Your task to perform on an android device: turn notification dots on Image 0: 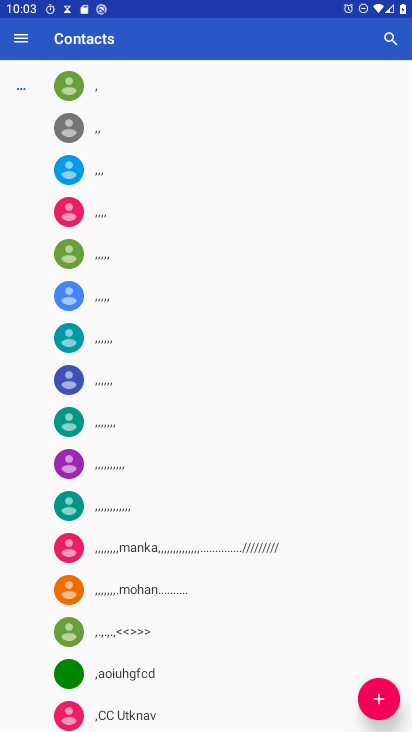
Step 0: press home button
Your task to perform on an android device: turn notification dots on Image 1: 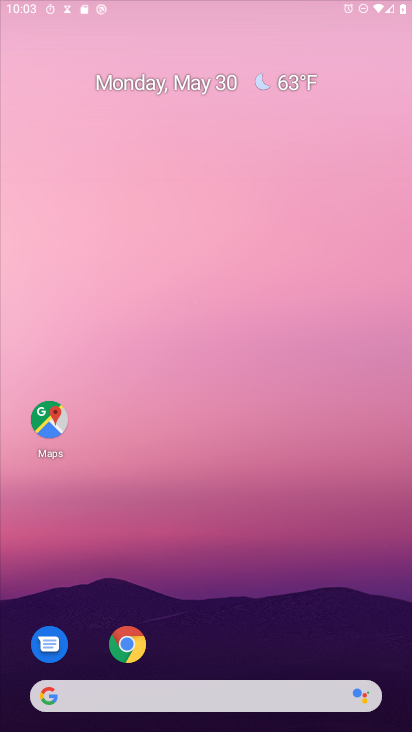
Step 1: drag from (214, 650) to (201, 31)
Your task to perform on an android device: turn notification dots on Image 2: 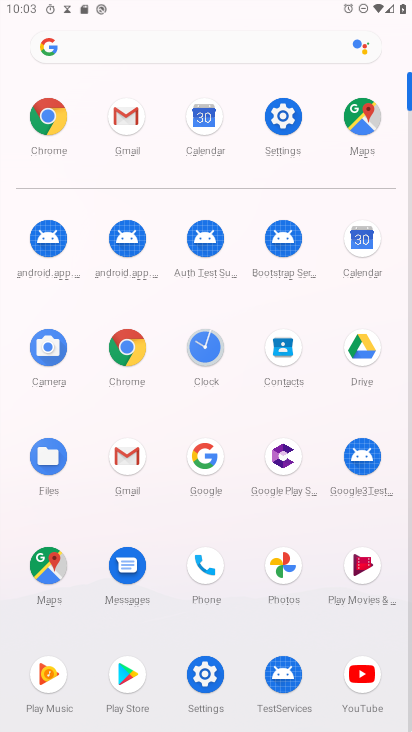
Step 2: click (281, 113)
Your task to perform on an android device: turn notification dots on Image 3: 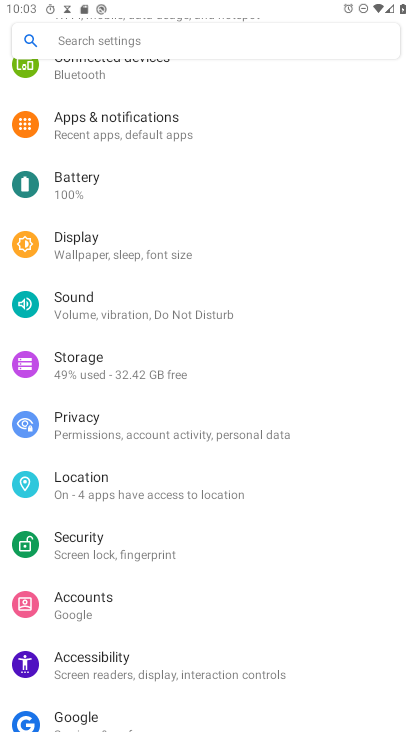
Step 3: click (92, 113)
Your task to perform on an android device: turn notification dots on Image 4: 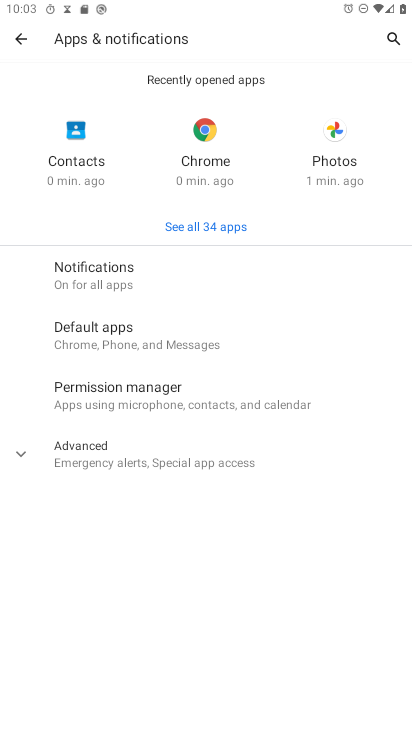
Step 4: click (121, 276)
Your task to perform on an android device: turn notification dots on Image 5: 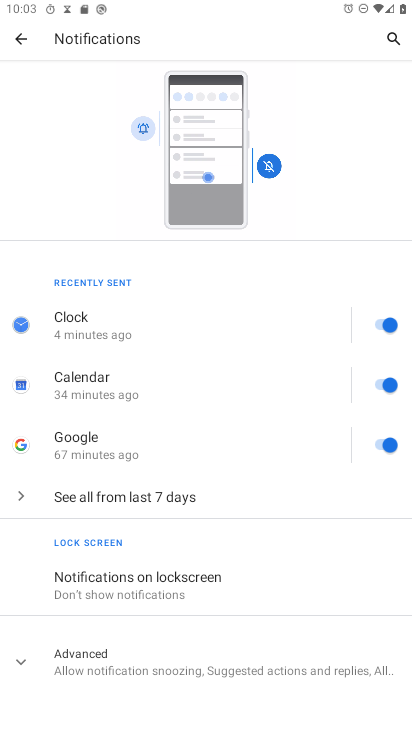
Step 5: click (124, 669)
Your task to perform on an android device: turn notification dots on Image 6: 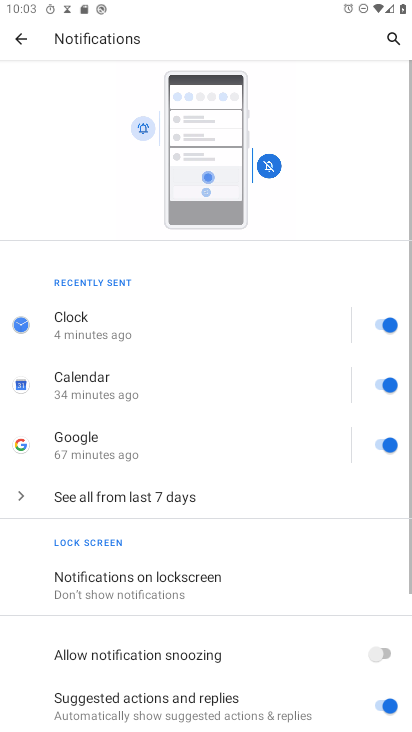
Step 6: drag from (259, 584) to (268, 136)
Your task to perform on an android device: turn notification dots on Image 7: 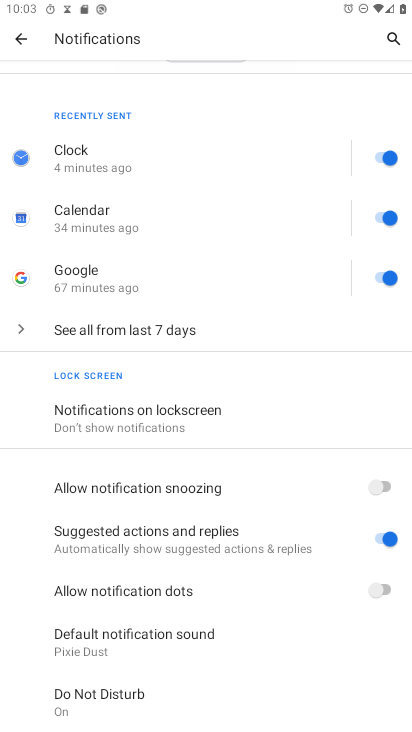
Step 7: click (381, 584)
Your task to perform on an android device: turn notification dots on Image 8: 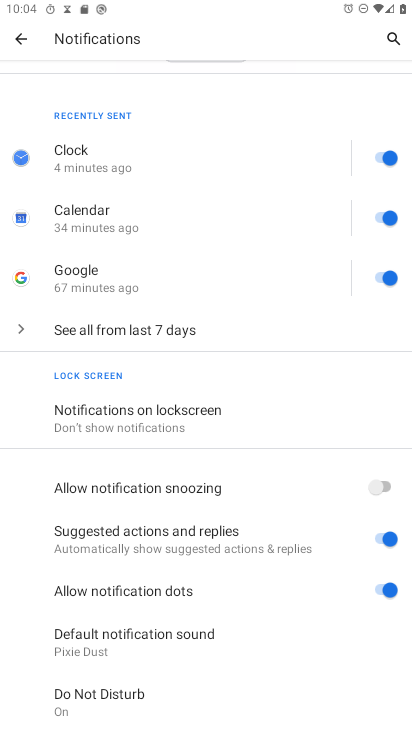
Step 8: task complete